Your task to perform on an android device: turn on wifi Image 0: 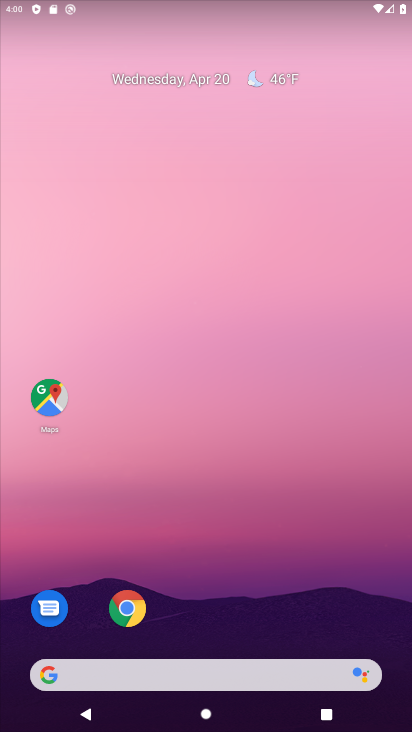
Step 0: drag from (214, 643) to (261, 266)
Your task to perform on an android device: turn on wifi Image 1: 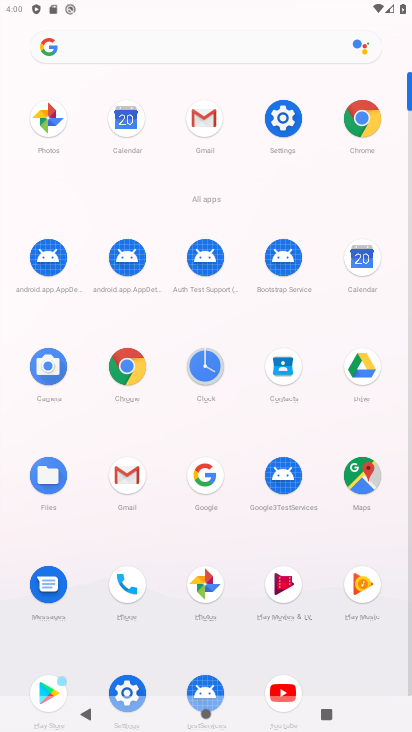
Step 1: click (282, 125)
Your task to perform on an android device: turn on wifi Image 2: 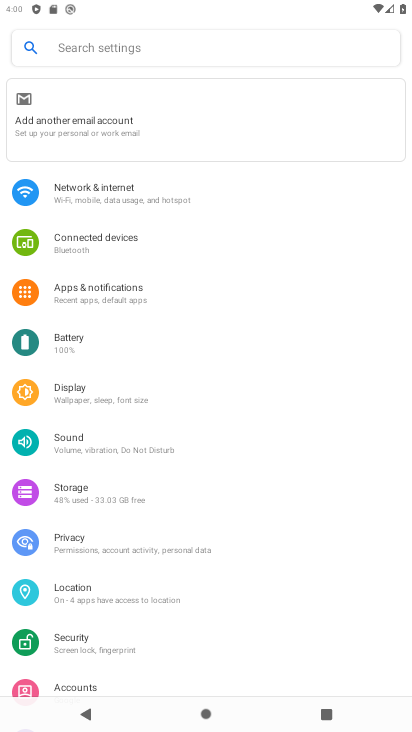
Step 2: click (89, 196)
Your task to perform on an android device: turn on wifi Image 3: 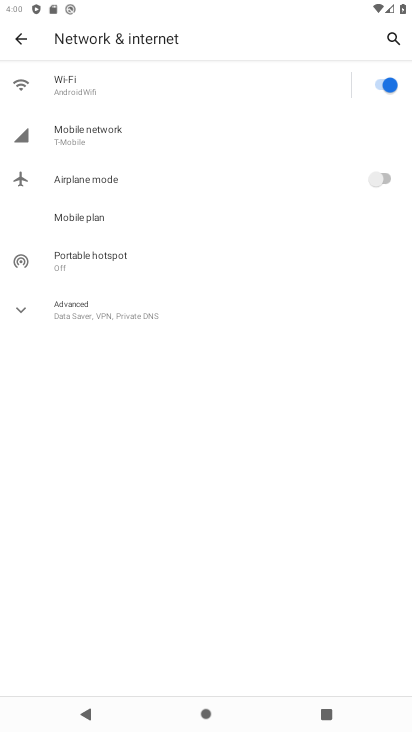
Step 3: click (240, 92)
Your task to perform on an android device: turn on wifi Image 4: 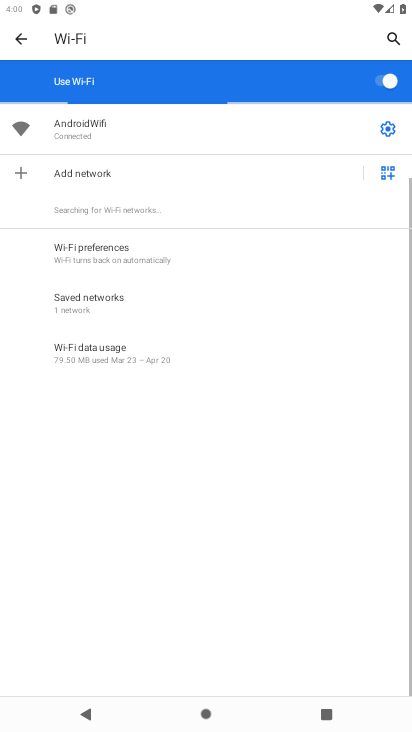
Step 4: task complete